Your task to perform on an android device: Open Android settings Image 0: 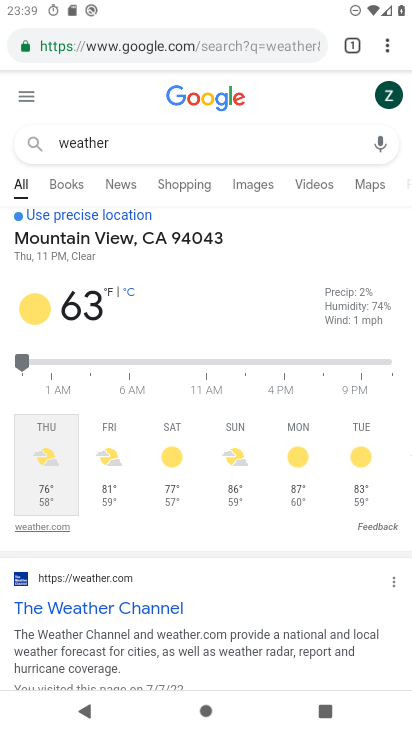
Step 0: press home button
Your task to perform on an android device: Open Android settings Image 1: 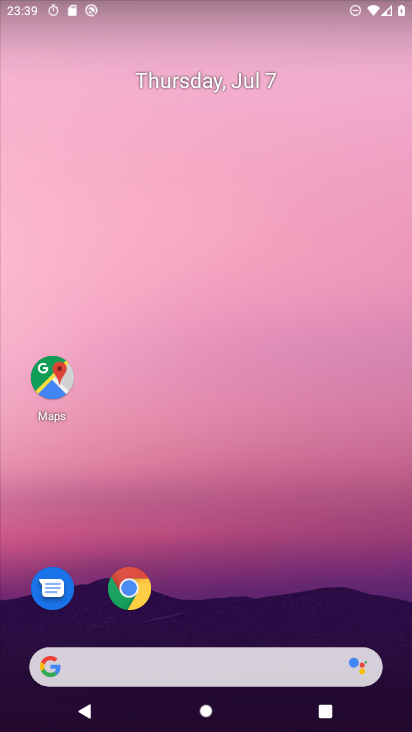
Step 1: drag from (255, 492) to (243, 79)
Your task to perform on an android device: Open Android settings Image 2: 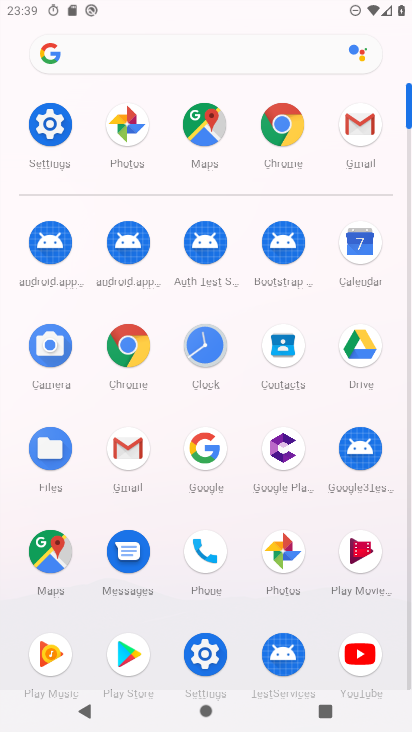
Step 2: click (45, 119)
Your task to perform on an android device: Open Android settings Image 3: 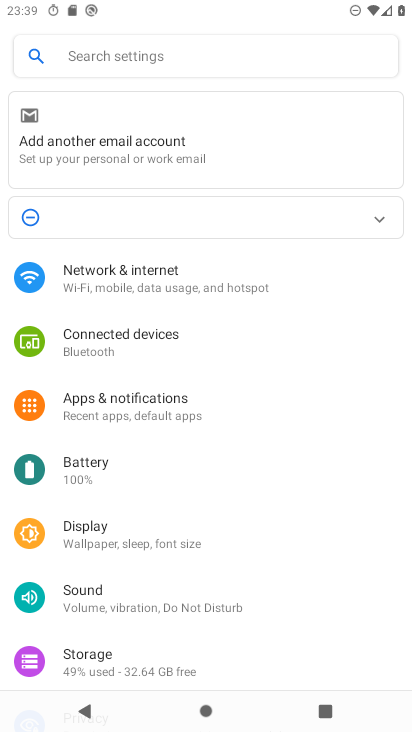
Step 3: task complete